Your task to perform on an android device: stop showing notifications on the lock screen Image 0: 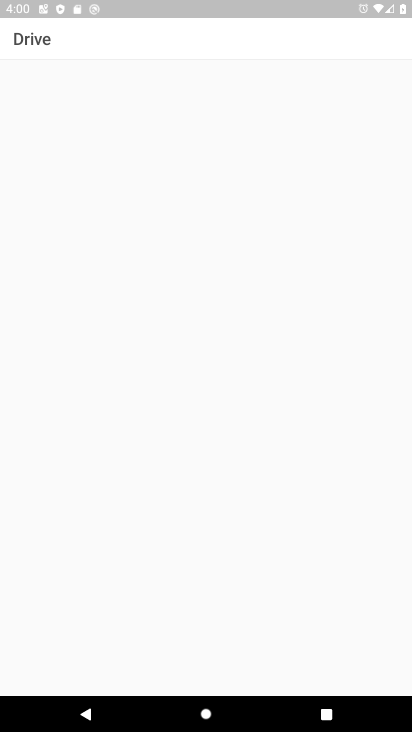
Step 0: press home button
Your task to perform on an android device: stop showing notifications on the lock screen Image 1: 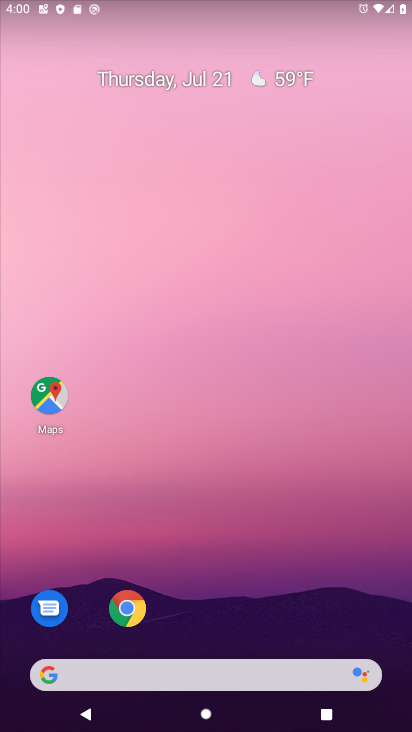
Step 1: drag from (331, 658) to (382, 28)
Your task to perform on an android device: stop showing notifications on the lock screen Image 2: 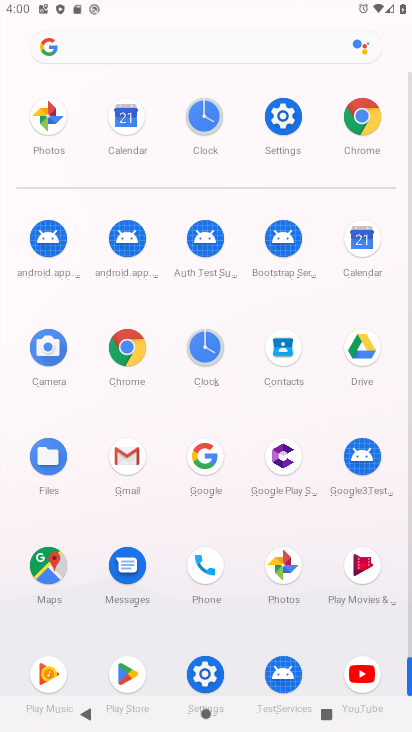
Step 2: click (294, 113)
Your task to perform on an android device: stop showing notifications on the lock screen Image 3: 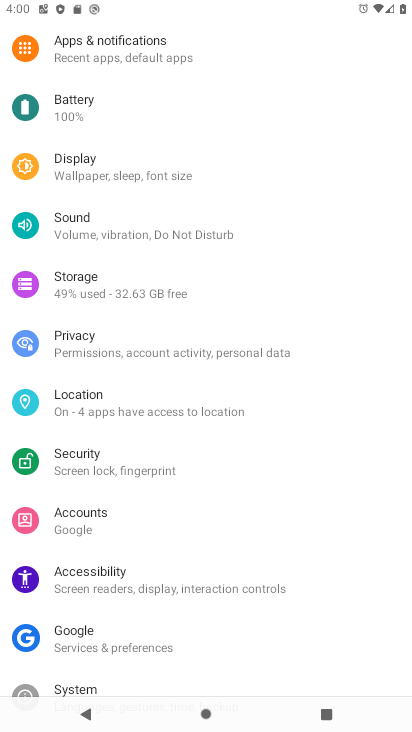
Step 3: click (139, 47)
Your task to perform on an android device: stop showing notifications on the lock screen Image 4: 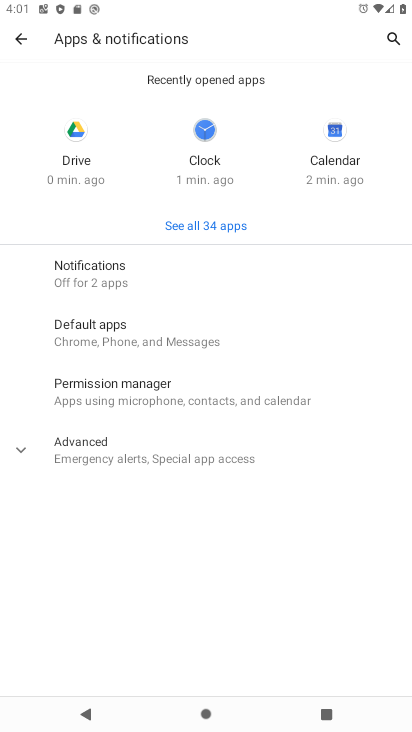
Step 4: click (147, 276)
Your task to perform on an android device: stop showing notifications on the lock screen Image 5: 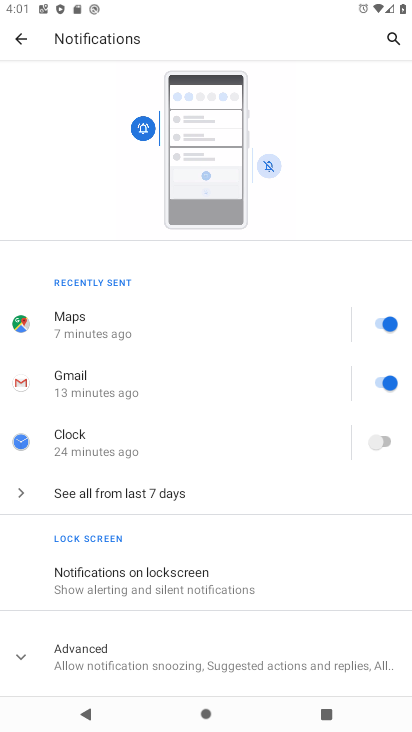
Step 5: click (198, 589)
Your task to perform on an android device: stop showing notifications on the lock screen Image 6: 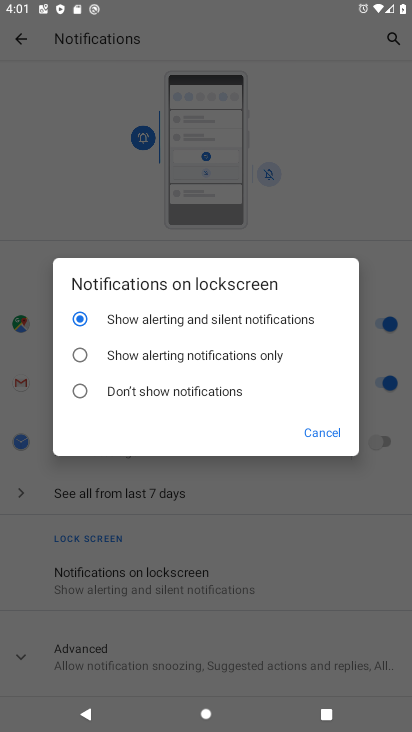
Step 6: click (76, 390)
Your task to perform on an android device: stop showing notifications on the lock screen Image 7: 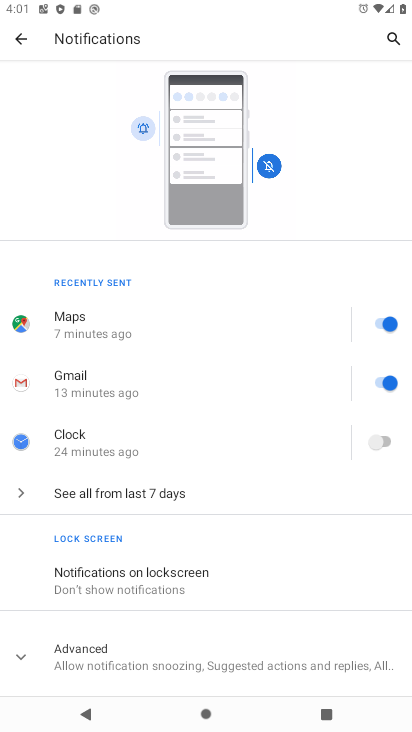
Step 7: task complete